Your task to perform on an android device: toggle priority inbox in the gmail app Image 0: 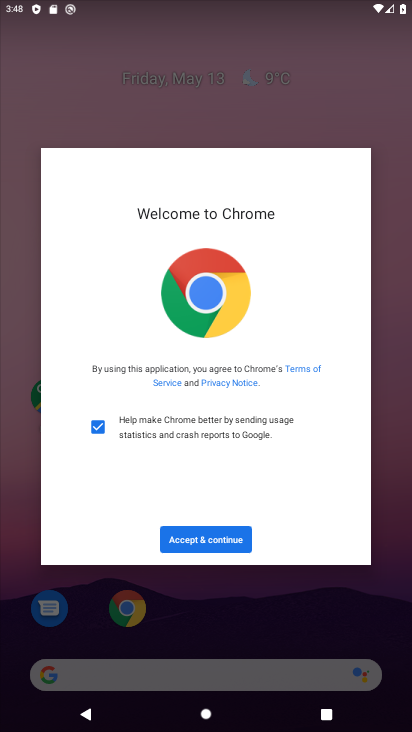
Step 0: press home button
Your task to perform on an android device: toggle priority inbox in the gmail app Image 1: 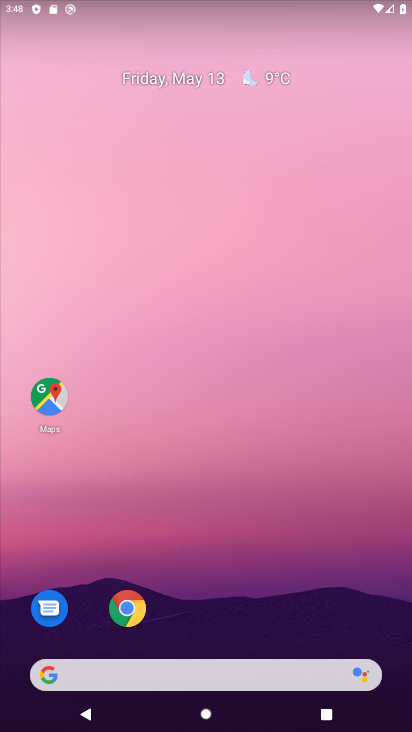
Step 1: drag from (281, 573) to (228, 72)
Your task to perform on an android device: toggle priority inbox in the gmail app Image 2: 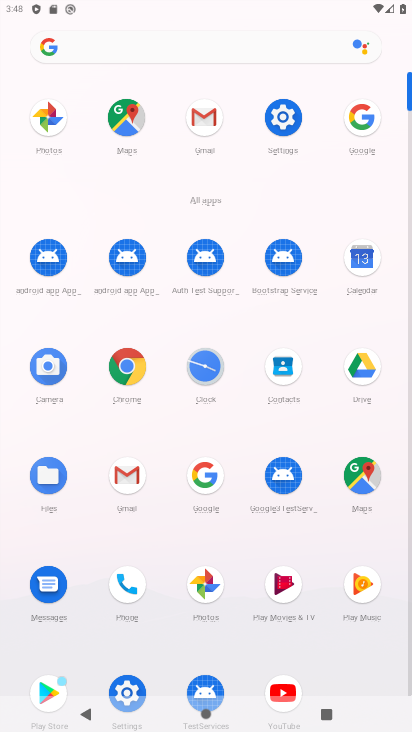
Step 2: click (122, 484)
Your task to perform on an android device: toggle priority inbox in the gmail app Image 3: 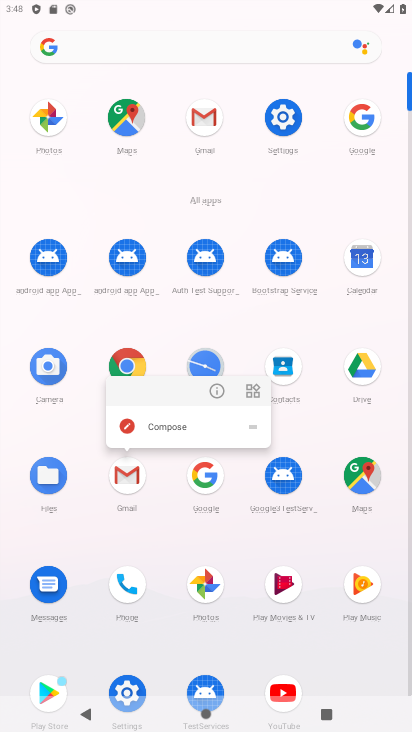
Step 3: click (122, 480)
Your task to perform on an android device: toggle priority inbox in the gmail app Image 4: 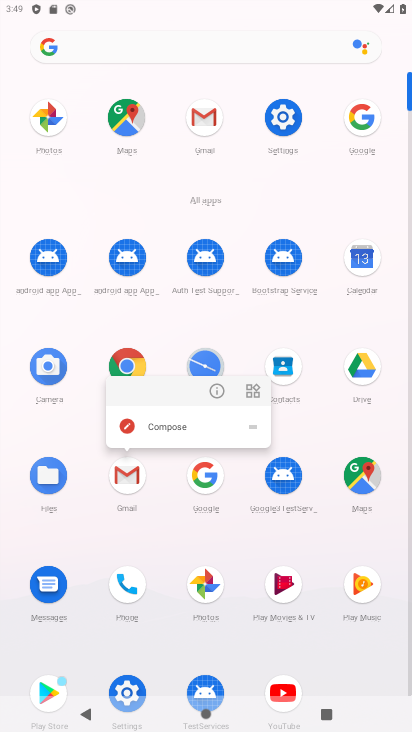
Step 4: click (122, 481)
Your task to perform on an android device: toggle priority inbox in the gmail app Image 5: 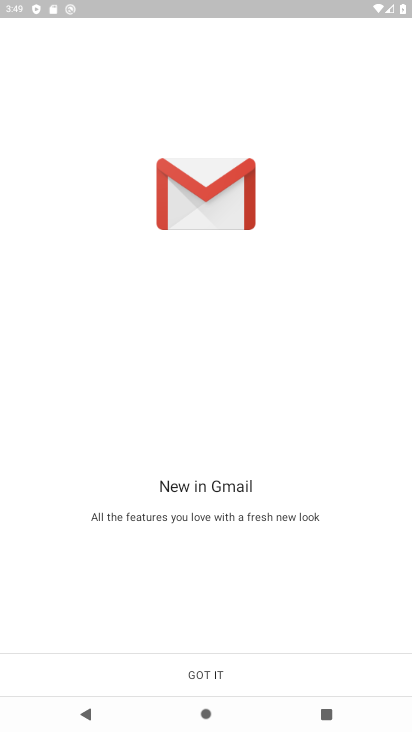
Step 5: click (220, 677)
Your task to perform on an android device: toggle priority inbox in the gmail app Image 6: 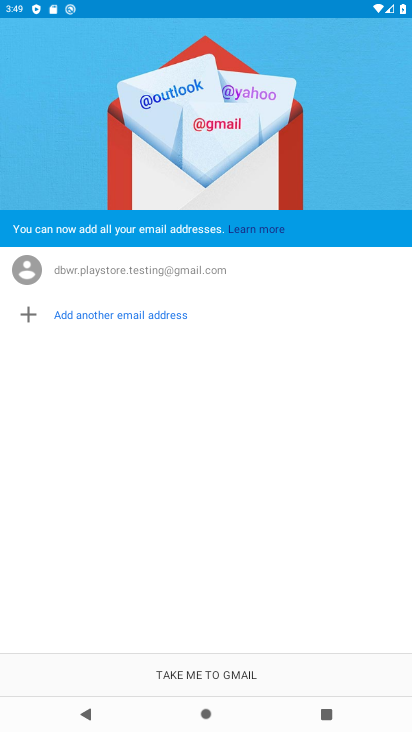
Step 6: click (200, 671)
Your task to perform on an android device: toggle priority inbox in the gmail app Image 7: 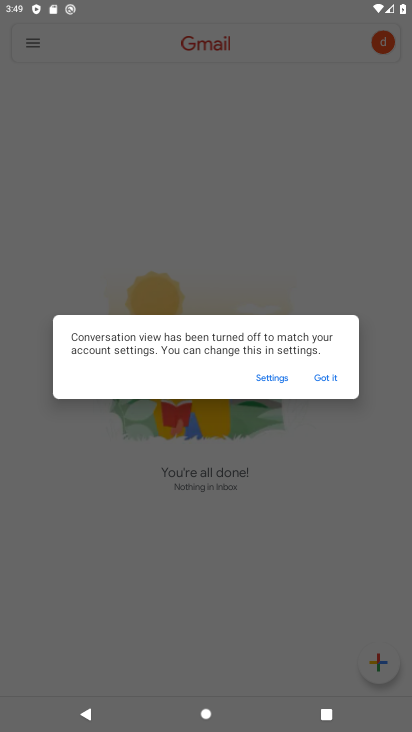
Step 7: click (327, 378)
Your task to perform on an android device: toggle priority inbox in the gmail app Image 8: 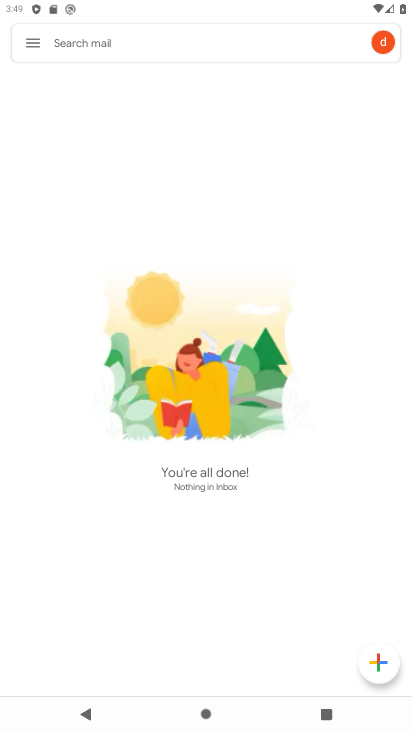
Step 8: click (33, 40)
Your task to perform on an android device: toggle priority inbox in the gmail app Image 9: 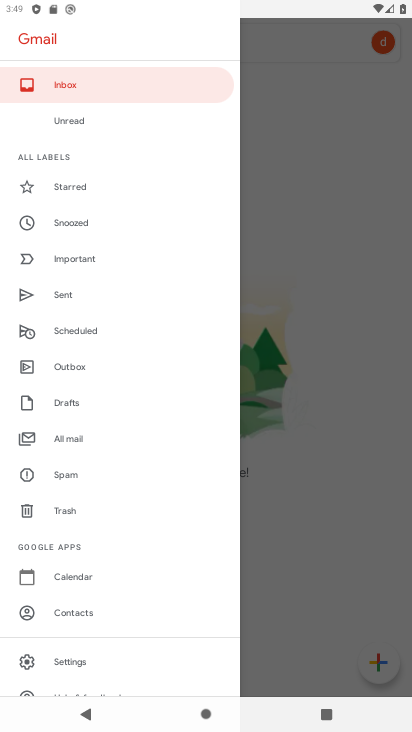
Step 9: click (93, 667)
Your task to perform on an android device: toggle priority inbox in the gmail app Image 10: 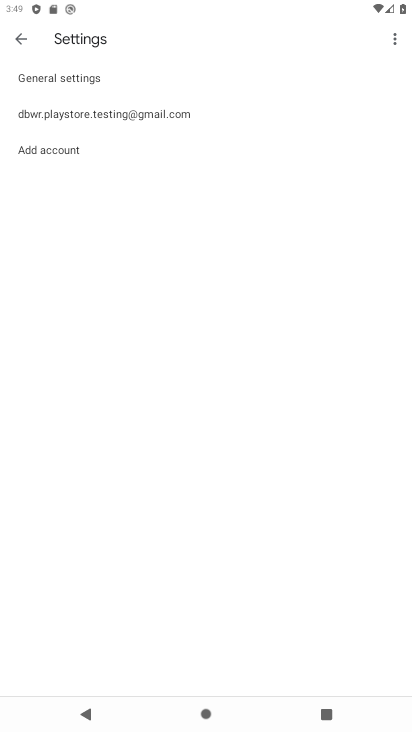
Step 10: click (105, 102)
Your task to perform on an android device: toggle priority inbox in the gmail app Image 11: 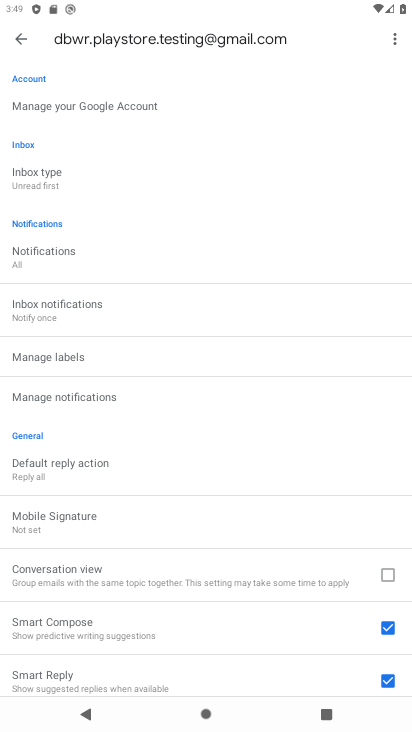
Step 11: click (110, 179)
Your task to perform on an android device: toggle priority inbox in the gmail app Image 12: 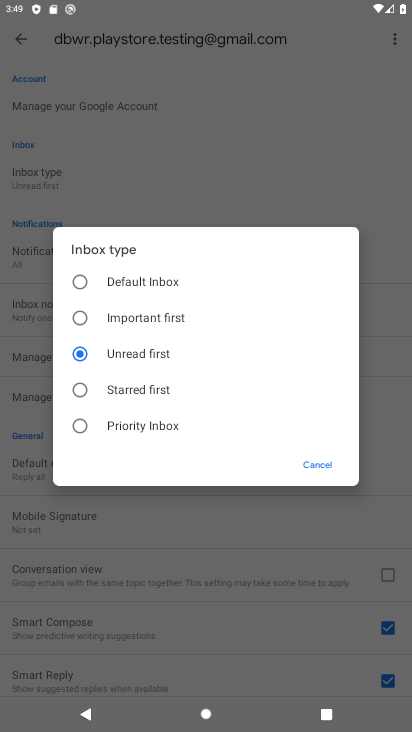
Step 12: click (123, 419)
Your task to perform on an android device: toggle priority inbox in the gmail app Image 13: 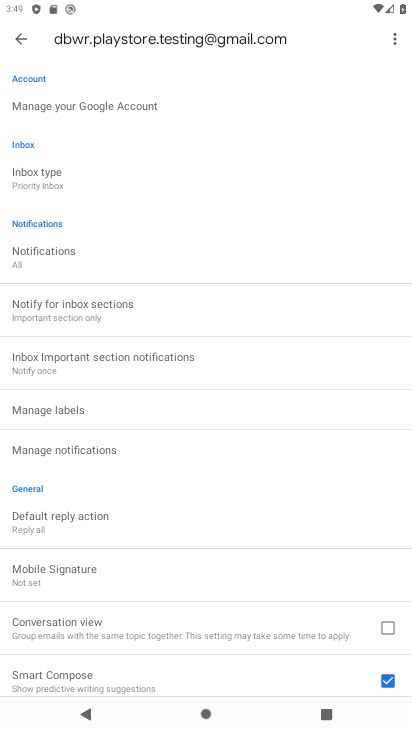
Step 13: task complete